Your task to perform on an android device: change the clock display to digital Image 0: 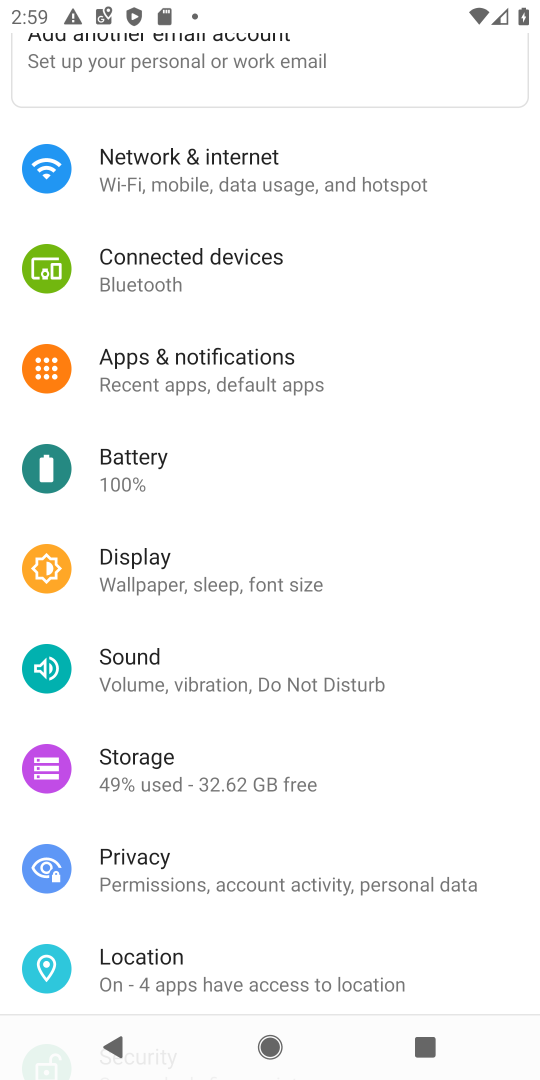
Step 0: press back button
Your task to perform on an android device: change the clock display to digital Image 1: 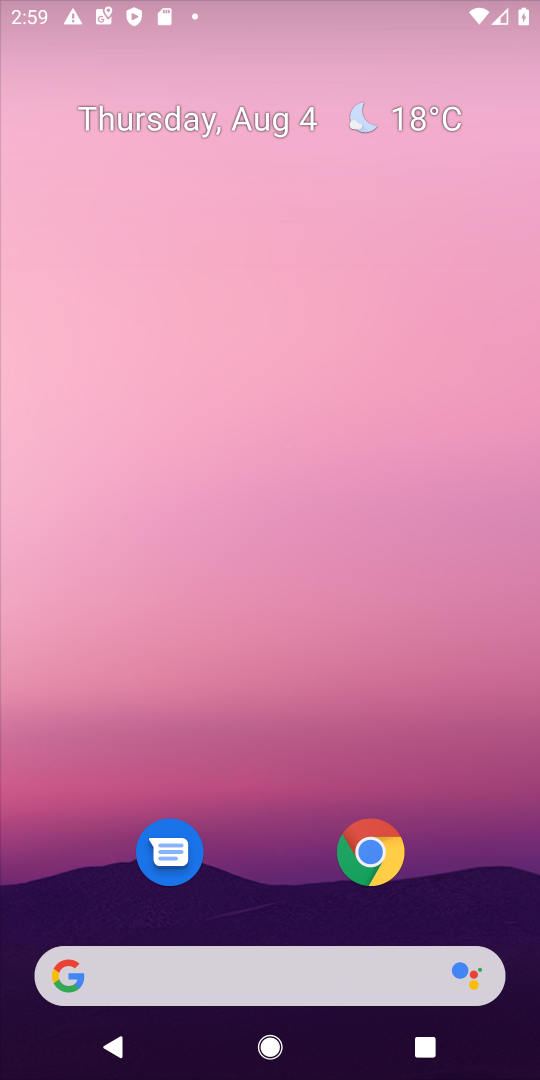
Step 1: press back button
Your task to perform on an android device: change the clock display to digital Image 2: 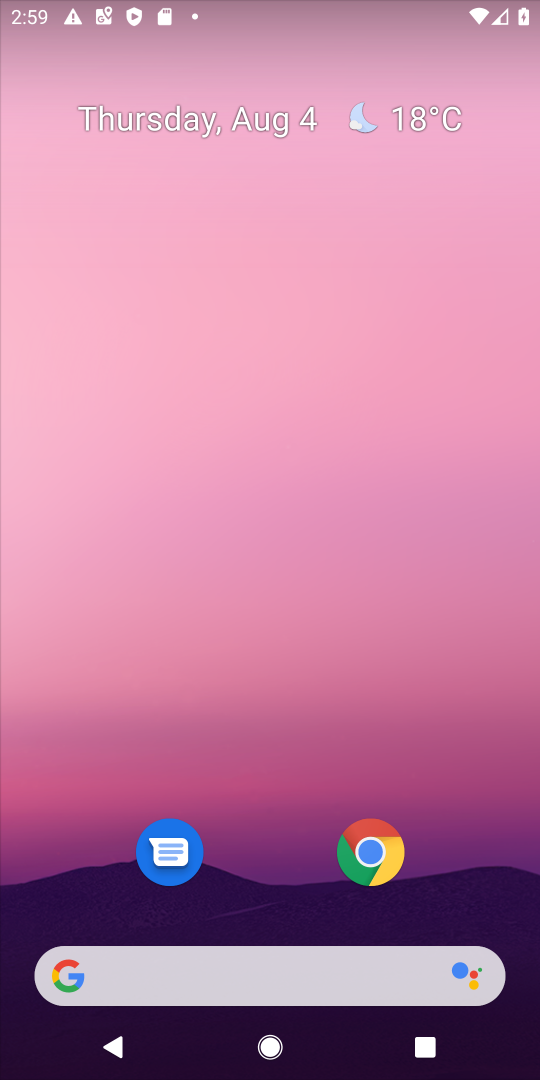
Step 2: drag from (303, 766) to (383, 205)
Your task to perform on an android device: change the clock display to digital Image 3: 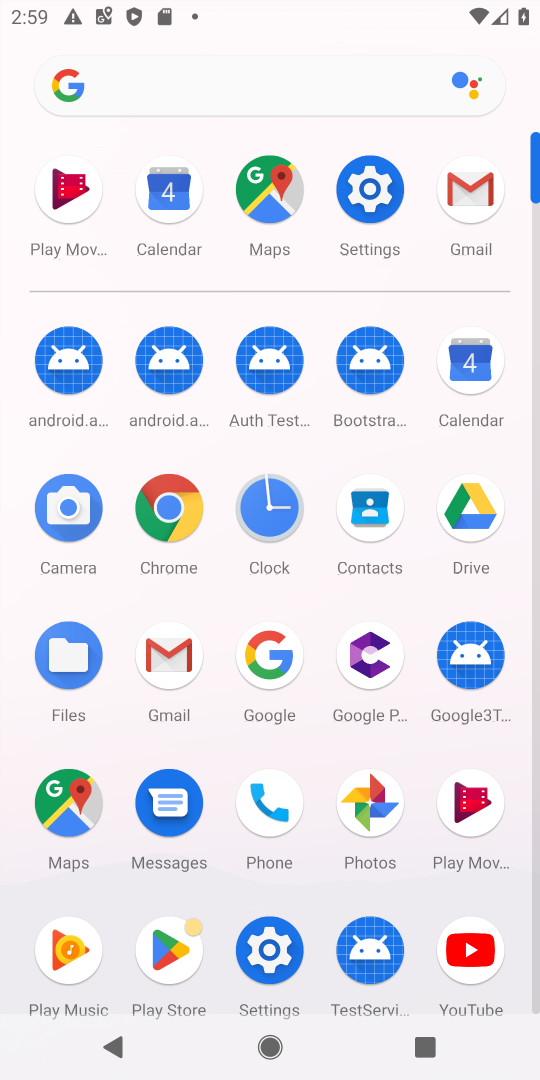
Step 3: click (277, 508)
Your task to perform on an android device: change the clock display to digital Image 4: 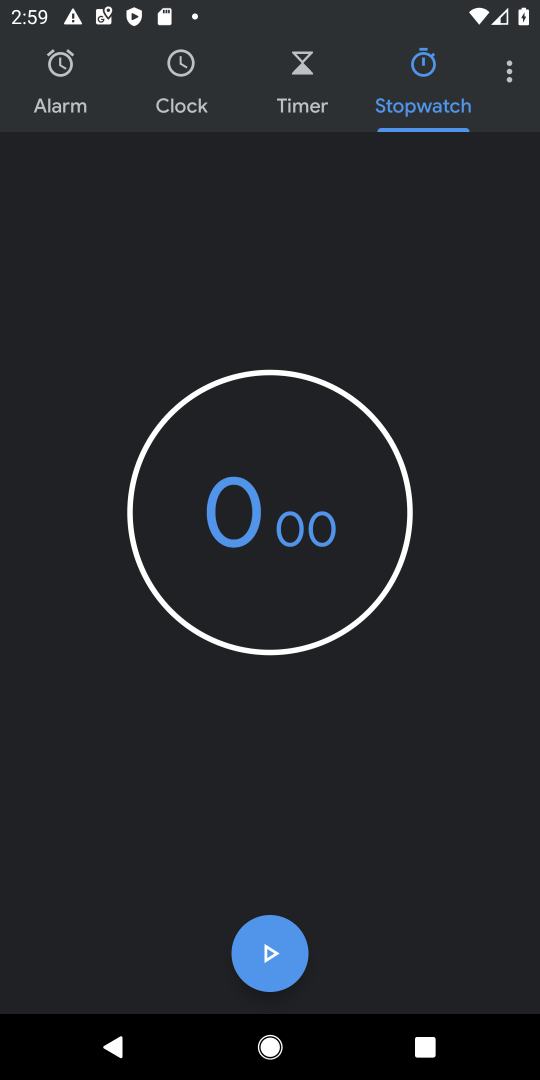
Step 4: click (496, 82)
Your task to perform on an android device: change the clock display to digital Image 5: 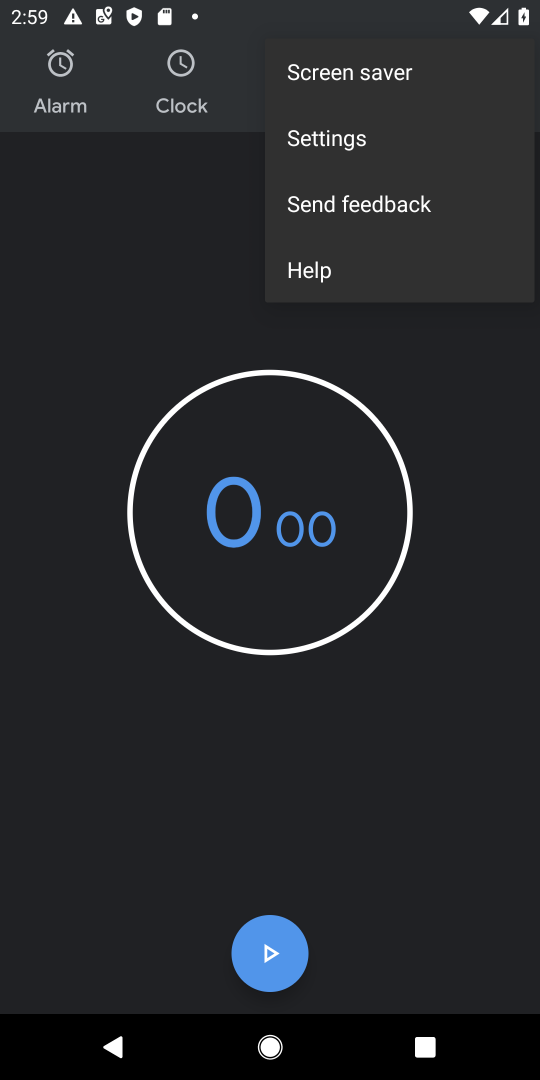
Step 5: click (338, 158)
Your task to perform on an android device: change the clock display to digital Image 6: 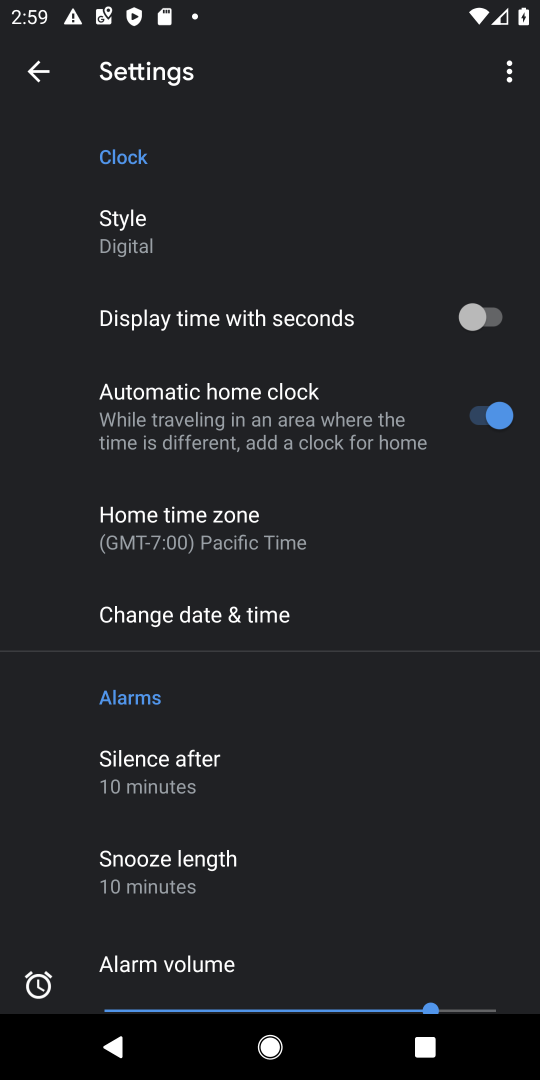
Step 6: task complete